Your task to perform on an android device: see creations saved in the google photos Image 0: 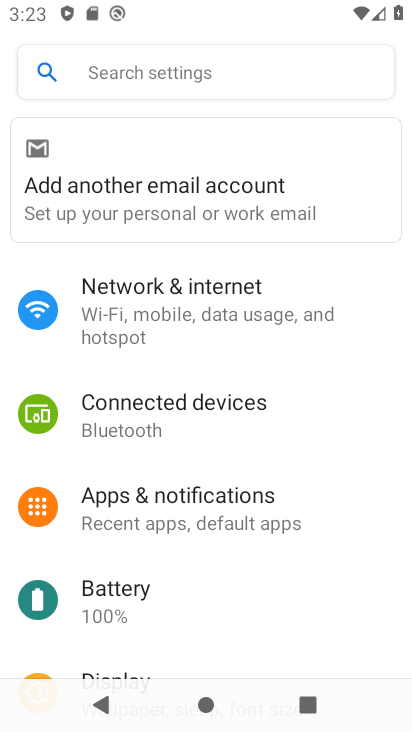
Step 0: press back button
Your task to perform on an android device: see creations saved in the google photos Image 1: 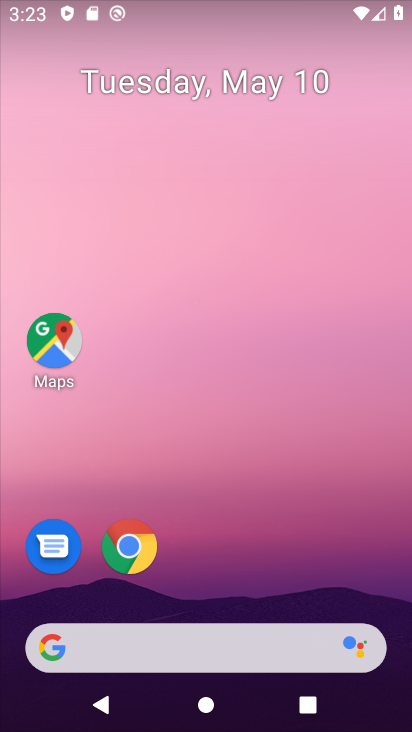
Step 1: drag from (209, 615) to (299, 65)
Your task to perform on an android device: see creations saved in the google photos Image 2: 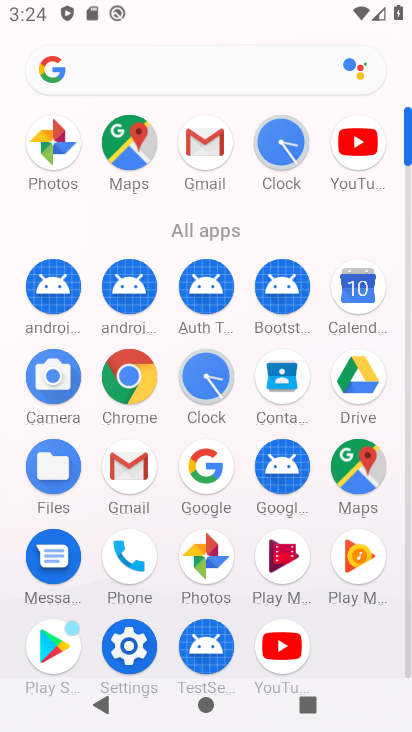
Step 2: click (212, 564)
Your task to perform on an android device: see creations saved in the google photos Image 3: 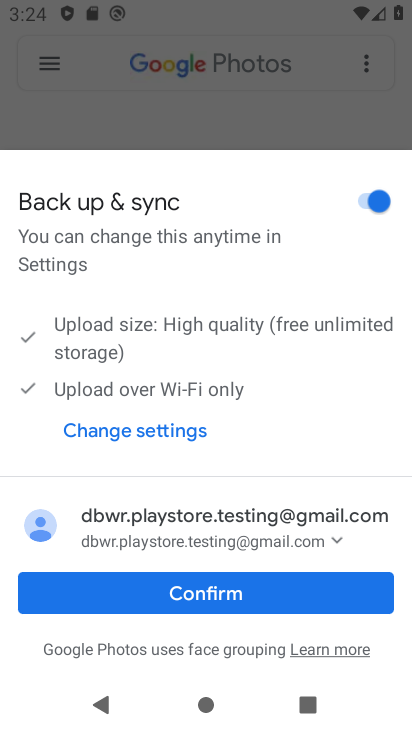
Step 3: click (260, 592)
Your task to perform on an android device: see creations saved in the google photos Image 4: 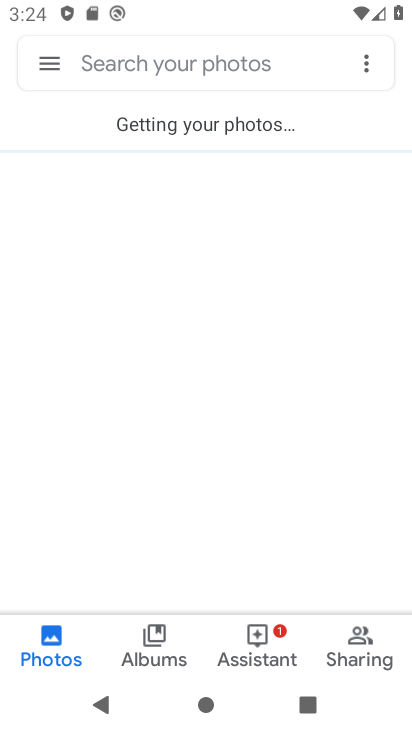
Step 4: click (183, 65)
Your task to perform on an android device: see creations saved in the google photos Image 5: 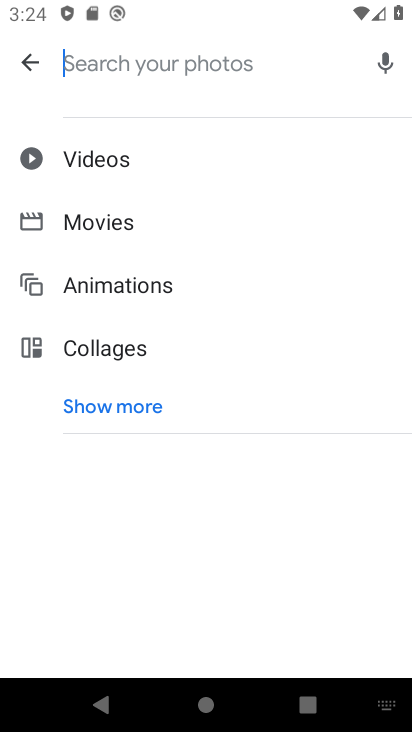
Step 5: click (124, 410)
Your task to perform on an android device: see creations saved in the google photos Image 6: 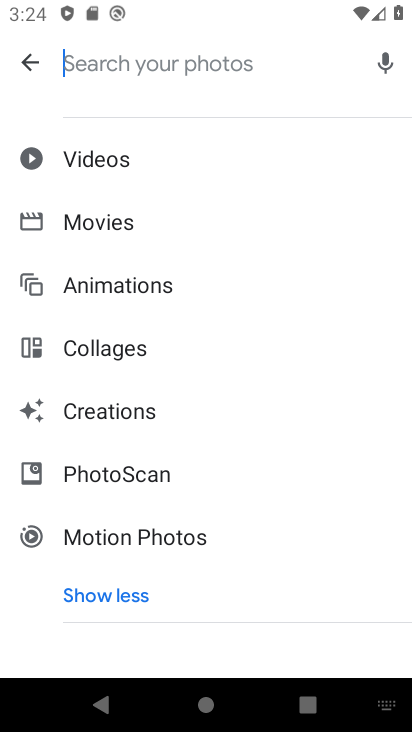
Step 6: click (156, 415)
Your task to perform on an android device: see creations saved in the google photos Image 7: 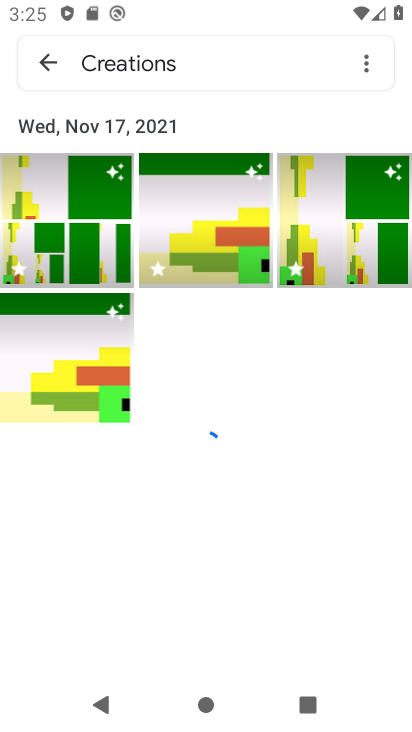
Step 7: task complete